Your task to perform on an android device: open chrome privacy settings Image 0: 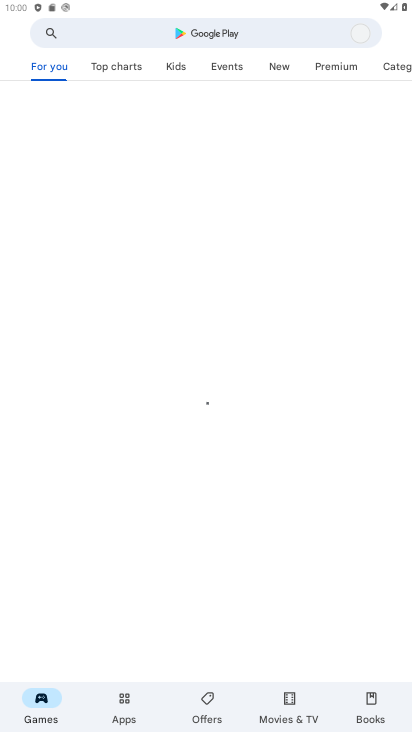
Step 0: press home button
Your task to perform on an android device: open chrome privacy settings Image 1: 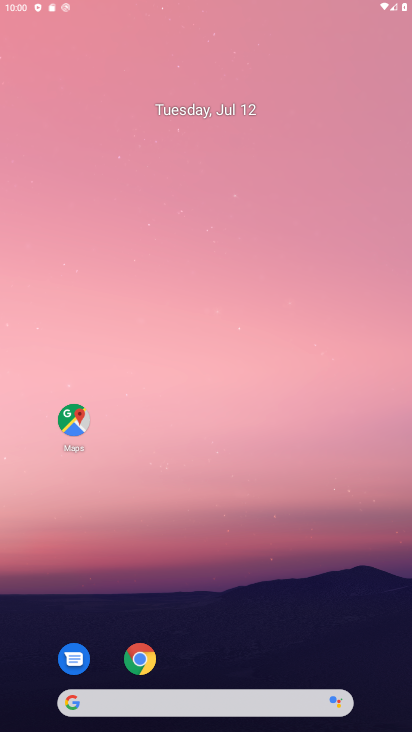
Step 1: drag from (202, 661) to (233, 336)
Your task to perform on an android device: open chrome privacy settings Image 2: 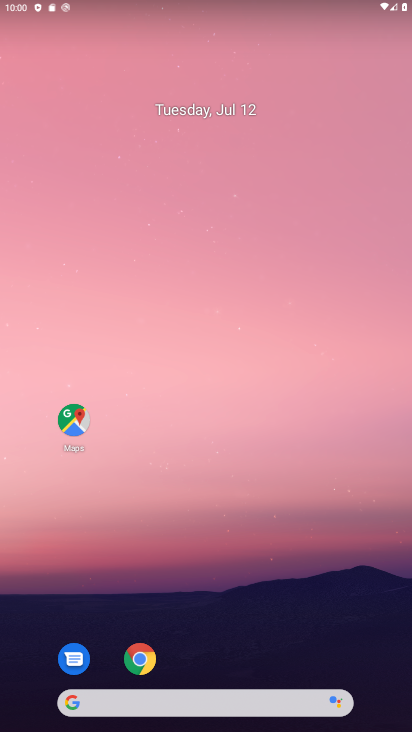
Step 2: drag from (192, 657) to (263, 242)
Your task to perform on an android device: open chrome privacy settings Image 3: 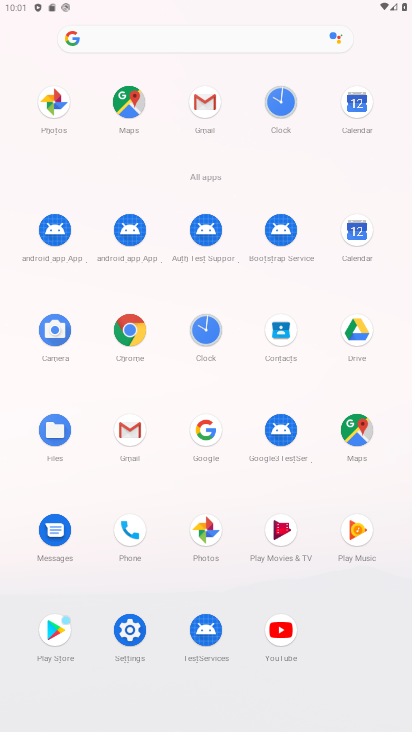
Step 3: click (132, 332)
Your task to perform on an android device: open chrome privacy settings Image 4: 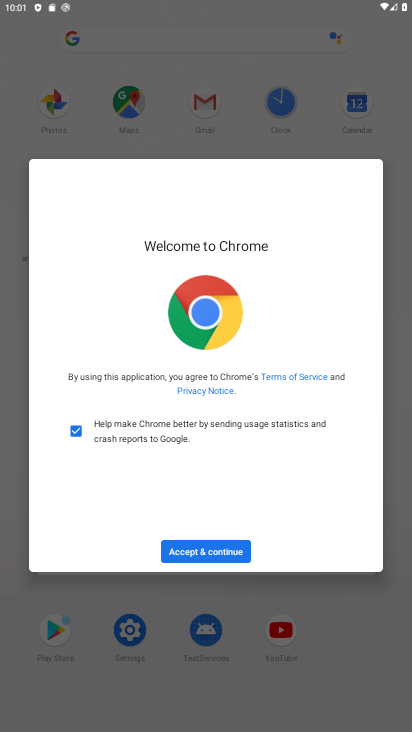
Step 4: click (204, 541)
Your task to perform on an android device: open chrome privacy settings Image 5: 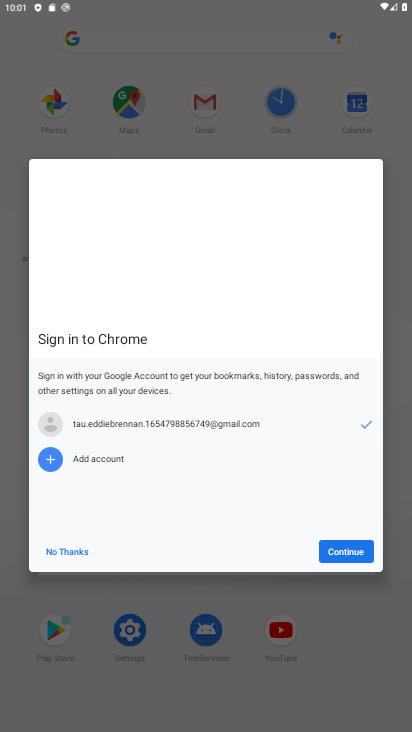
Step 5: click (366, 541)
Your task to perform on an android device: open chrome privacy settings Image 6: 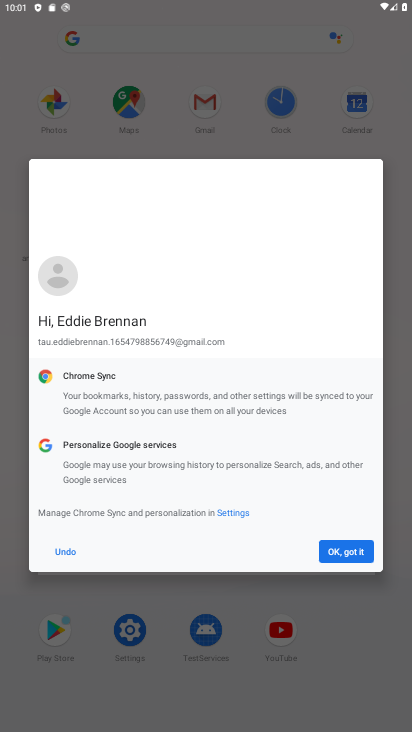
Step 6: click (362, 553)
Your task to perform on an android device: open chrome privacy settings Image 7: 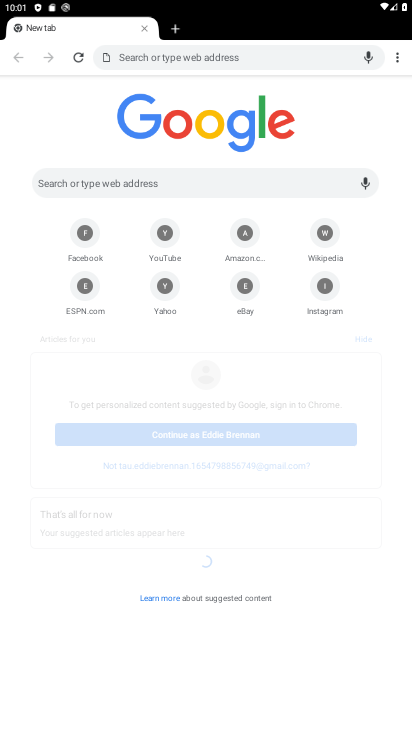
Step 7: click (394, 62)
Your task to perform on an android device: open chrome privacy settings Image 8: 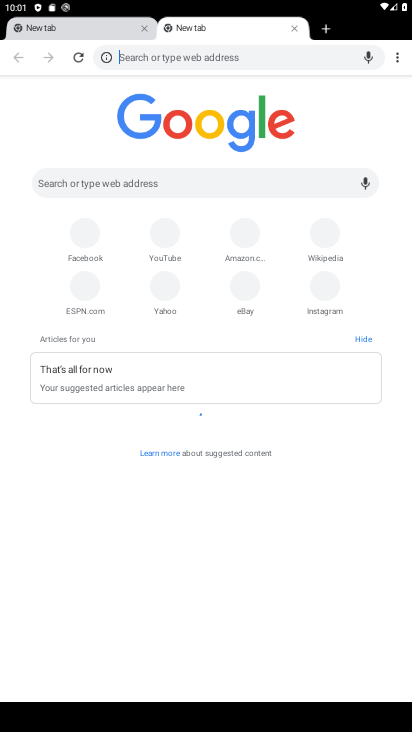
Step 8: click (397, 56)
Your task to perform on an android device: open chrome privacy settings Image 9: 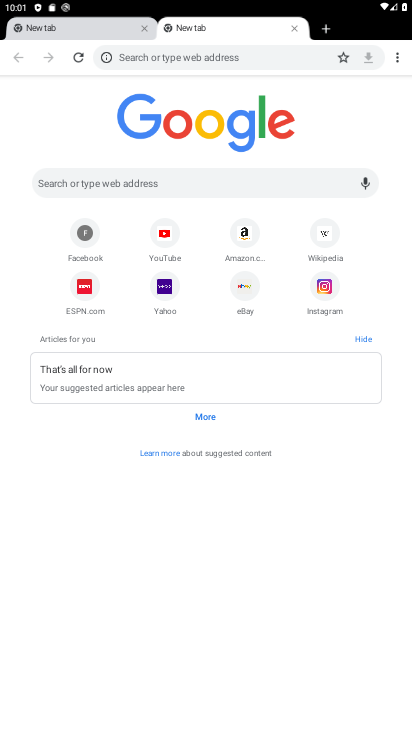
Step 9: click (397, 56)
Your task to perform on an android device: open chrome privacy settings Image 10: 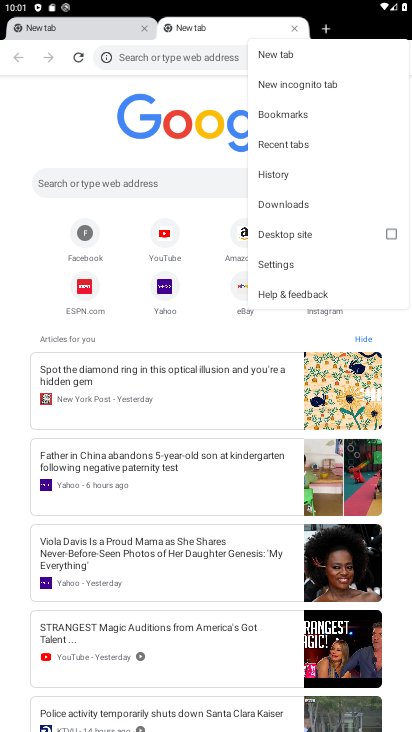
Step 10: click (283, 275)
Your task to perform on an android device: open chrome privacy settings Image 11: 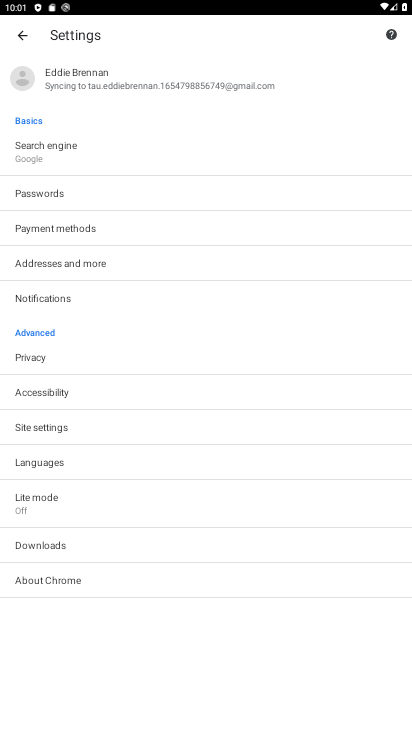
Step 11: click (91, 357)
Your task to perform on an android device: open chrome privacy settings Image 12: 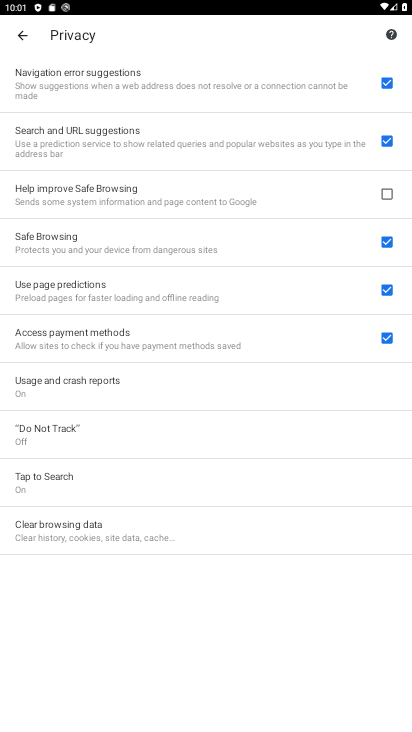
Step 12: task complete